Your task to perform on an android device: turn on sleep mode Image 0: 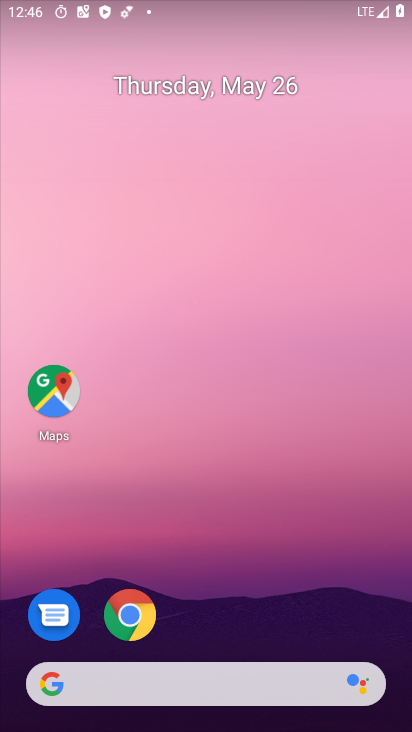
Step 0: drag from (236, 617) to (264, 174)
Your task to perform on an android device: turn on sleep mode Image 1: 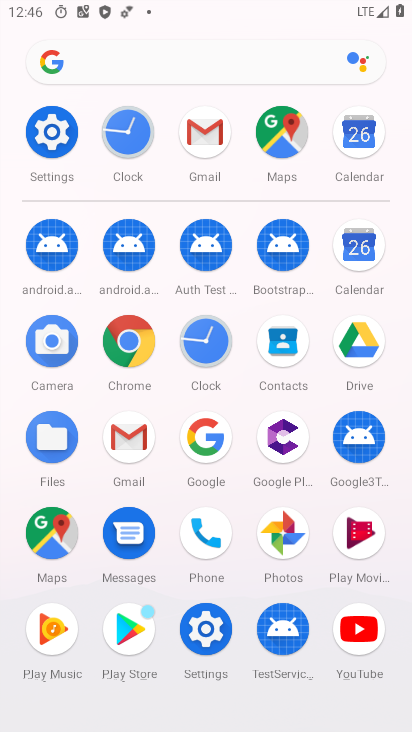
Step 1: click (49, 138)
Your task to perform on an android device: turn on sleep mode Image 2: 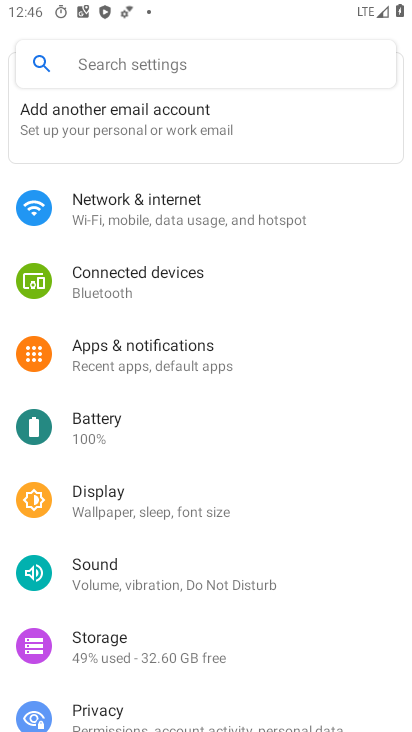
Step 2: click (139, 484)
Your task to perform on an android device: turn on sleep mode Image 3: 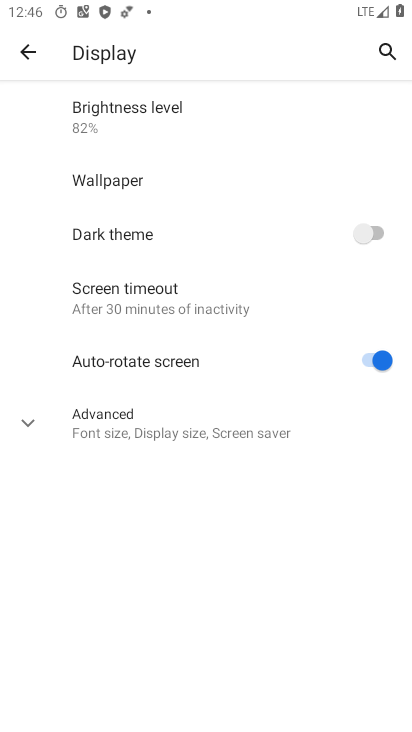
Step 3: click (234, 441)
Your task to perform on an android device: turn on sleep mode Image 4: 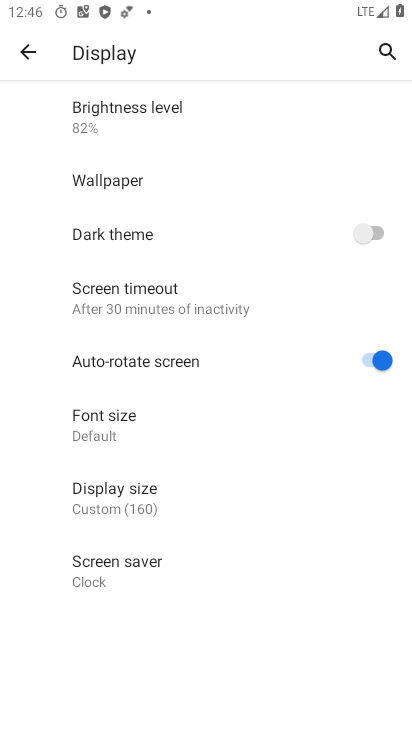
Step 4: task complete